Your task to perform on an android device: Turn off the flashlight Image 0: 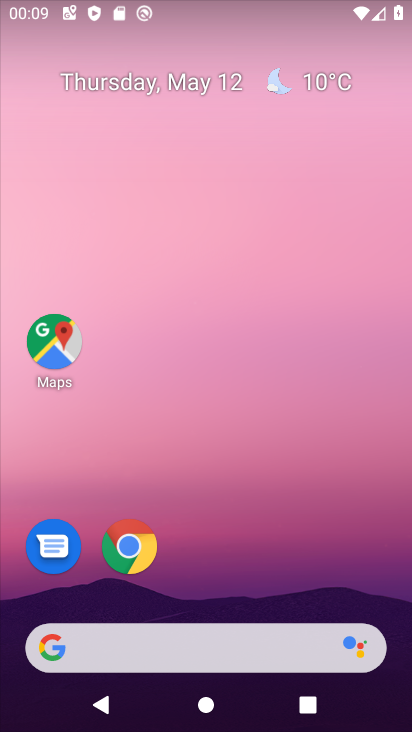
Step 0: drag from (165, 602) to (229, 211)
Your task to perform on an android device: Turn off the flashlight Image 1: 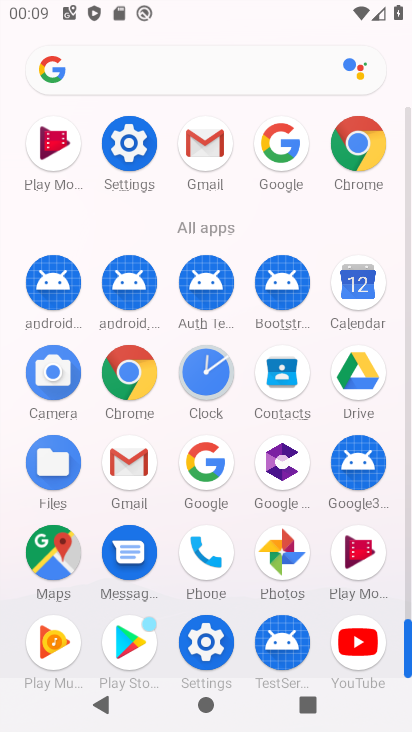
Step 1: click (202, 641)
Your task to perform on an android device: Turn off the flashlight Image 2: 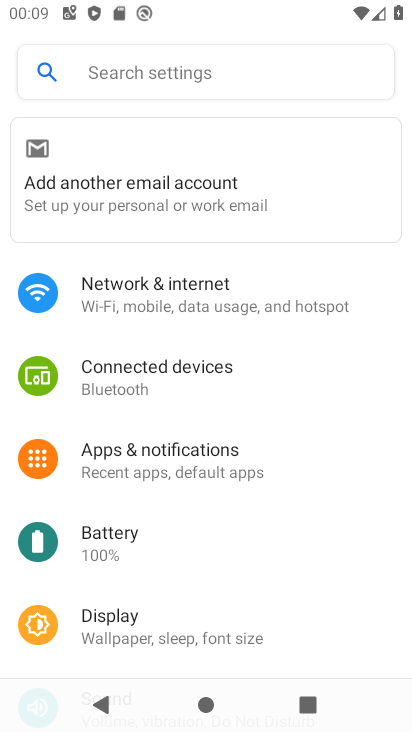
Step 2: click (144, 623)
Your task to perform on an android device: Turn off the flashlight Image 3: 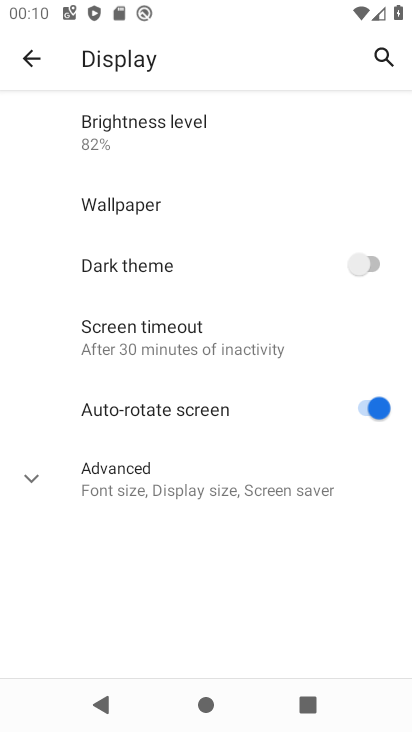
Step 3: task complete